Your task to perform on an android device: clear history in the chrome app Image 0: 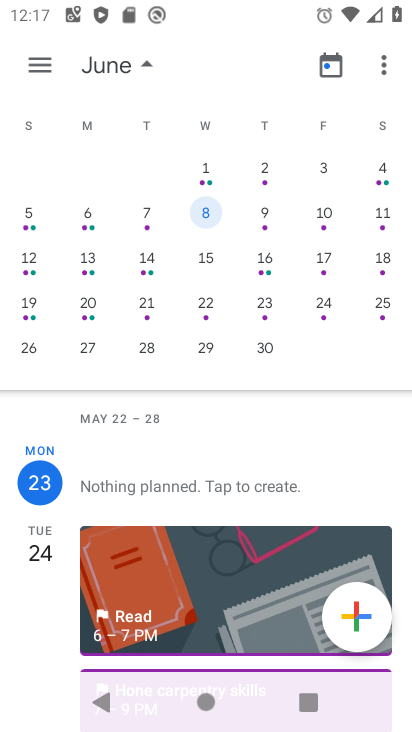
Step 0: press home button
Your task to perform on an android device: clear history in the chrome app Image 1: 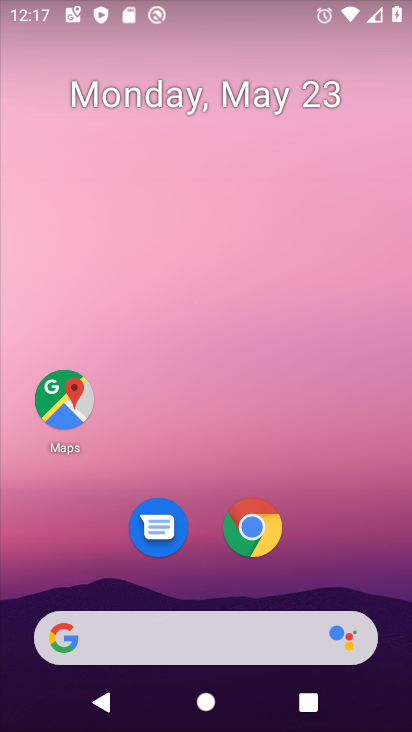
Step 1: drag from (367, 545) to (328, 454)
Your task to perform on an android device: clear history in the chrome app Image 2: 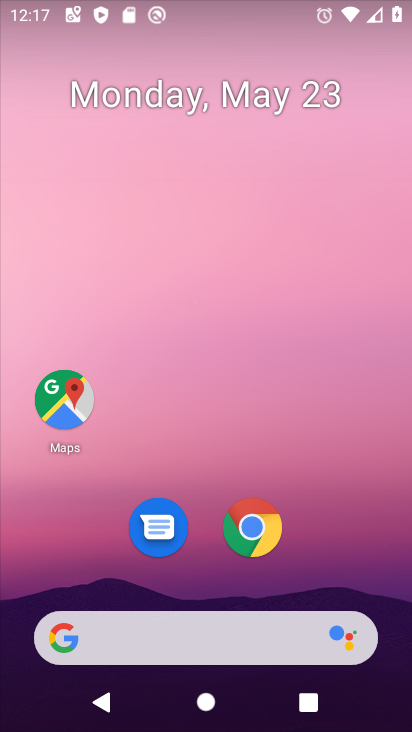
Step 2: click (252, 524)
Your task to perform on an android device: clear history in the chrome app Image 3: 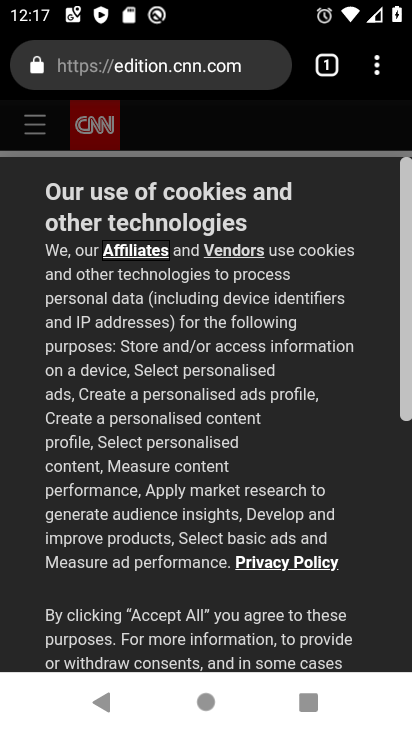
Step 3: click (379, 71)
Your task to perform on an android device: clear history in the chrome app Image 4: 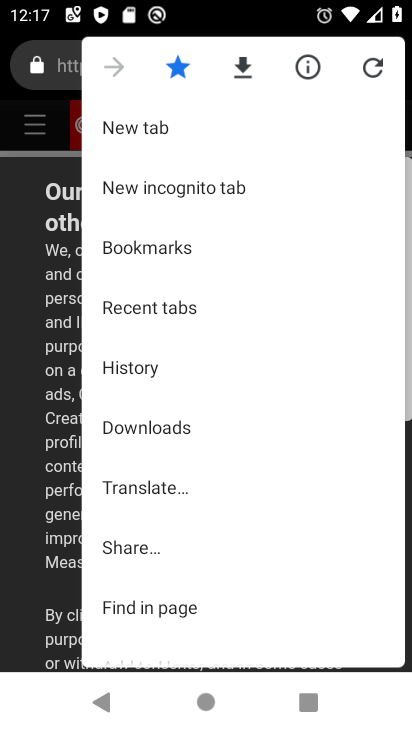
Step 4: click (149, 350)
Your task to perform on an android device: clear history in the chrome app Image 5: 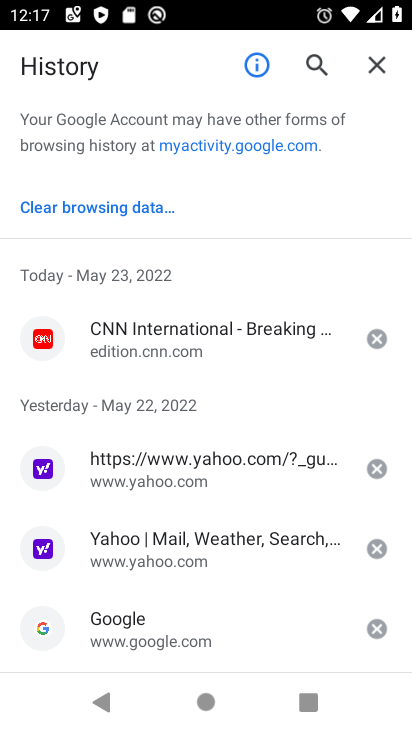
Step 5: click (102, 216)
Your task to perform on an android device: clear history in the chrome app Image 6: 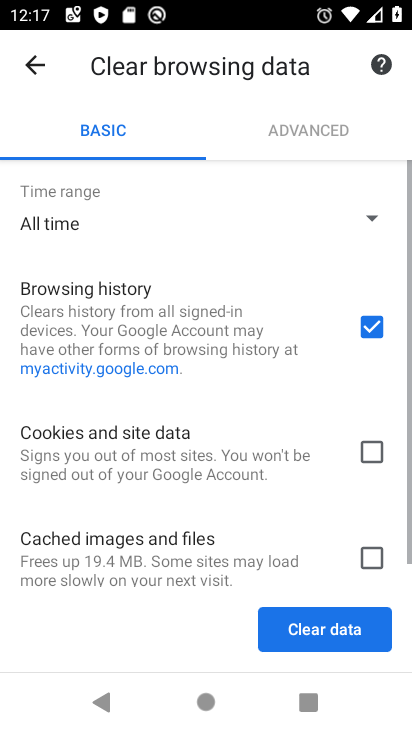
Step 6: click (337, 644)
Your task to perform on an android device: clear history in the chrome app Image 7: 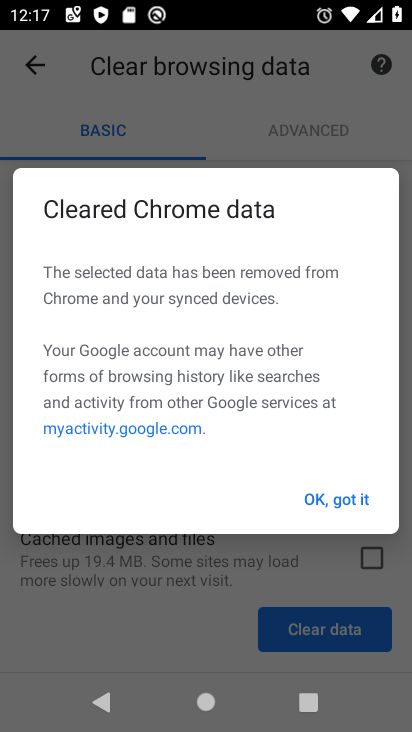
Step 7: task complete